Your task to perform on an android device: Go to ESPN.com Image 0: 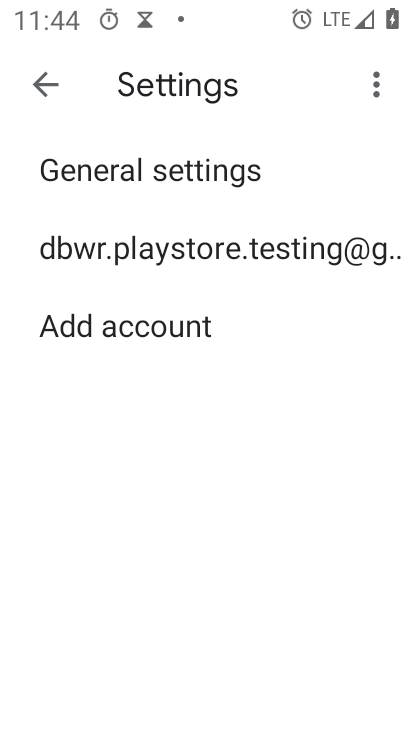
Step 0: press home button
Your task to perform on an android device: Go to ESPN.com Image 1: 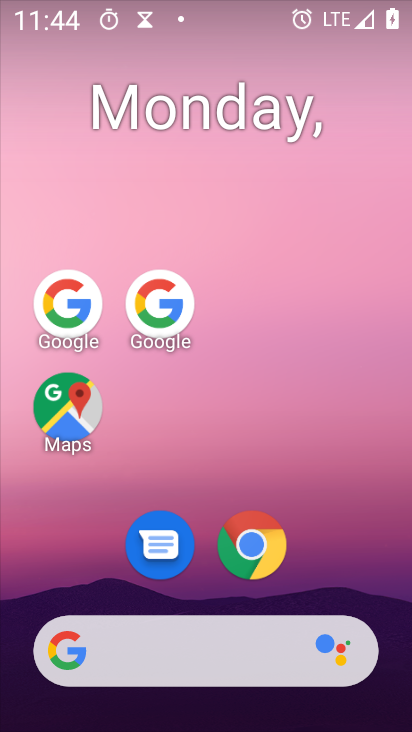
Step 1: click (244, 562)
Your task to perform on an android device: Go to ESPN.com Image 2: 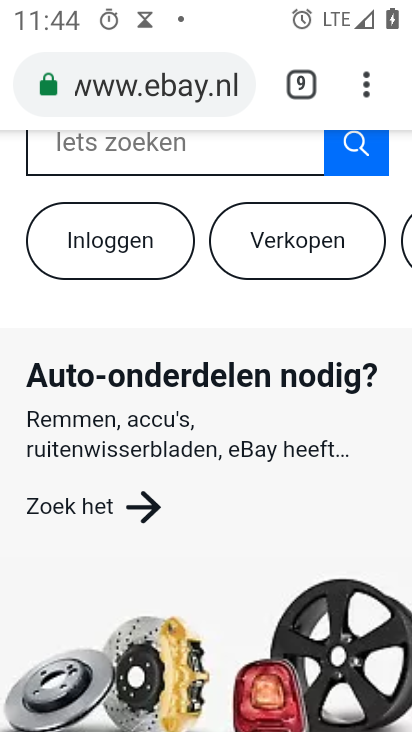
Step 2: drag from (367, 90) to (192, 177)
Your task to perform on an android device: Go to ESPN.com Image 3: 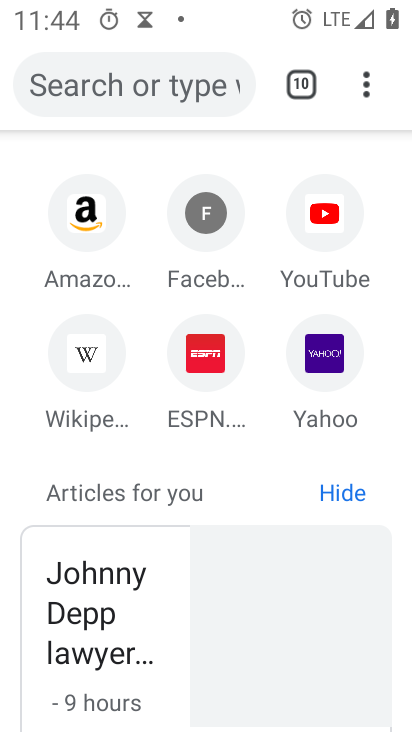
Step 3: click (198, 387)
Your task to perform on an android device: Go to ESPN.com Image 4: 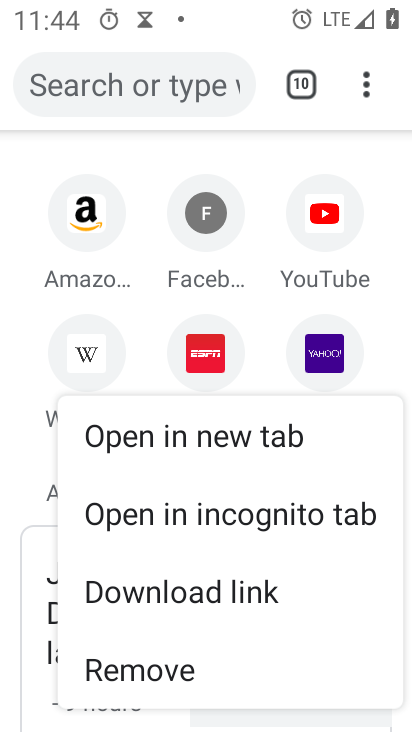
Step 4: click (201, 363)
Your task to perform on an android device: Go to ESPN.com Image 5: 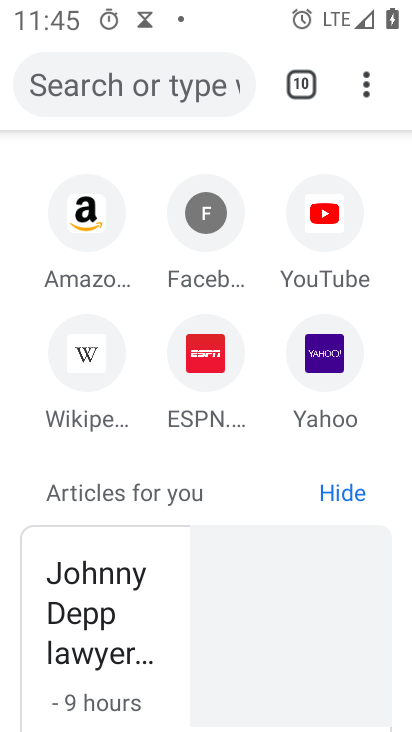
Step 5: click (202, 355)
Your task to perform on an android device: Go to ESPN.com Image 6: 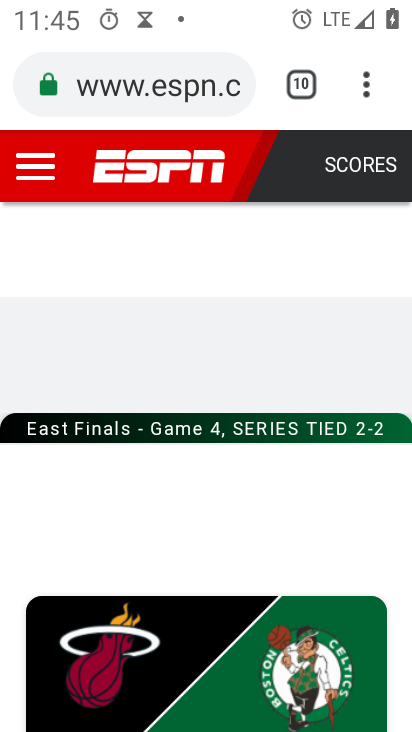
Step 6: task complete